Your task to perform on an android device: Open Chrome and go to settings Image 0: 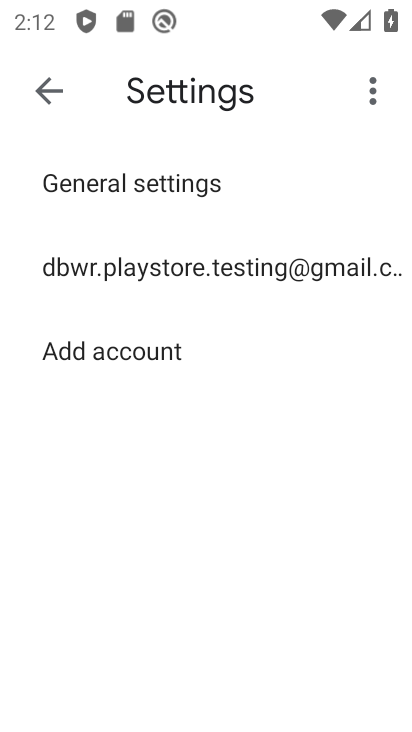
Step 0: press home button
Your task to perform on an android device: Open Chrome and go to settings Image 1: 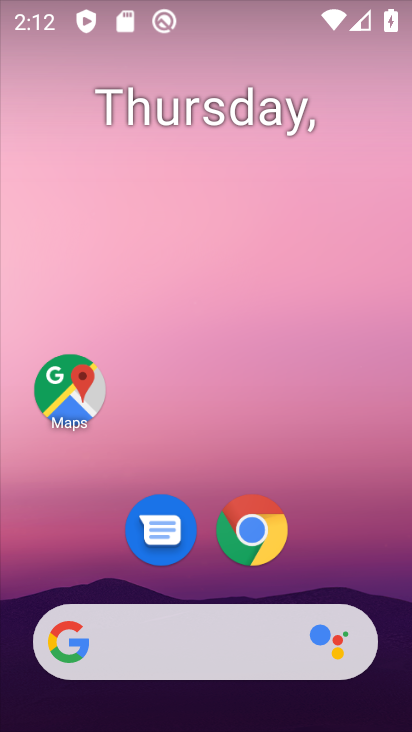
Step 1: click (249, 521)
Your task to perform on an android device: Open Chrome and go to settings Image 2: 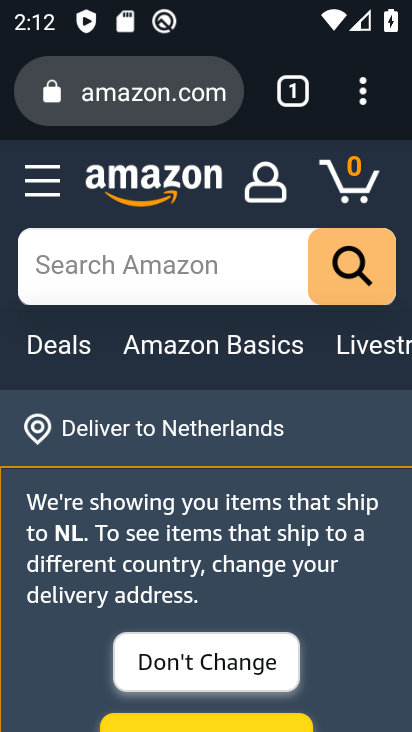
Step 2: click (362, 82)
Your task to perform on an android device: Open Chrome and go to settings Image 3: 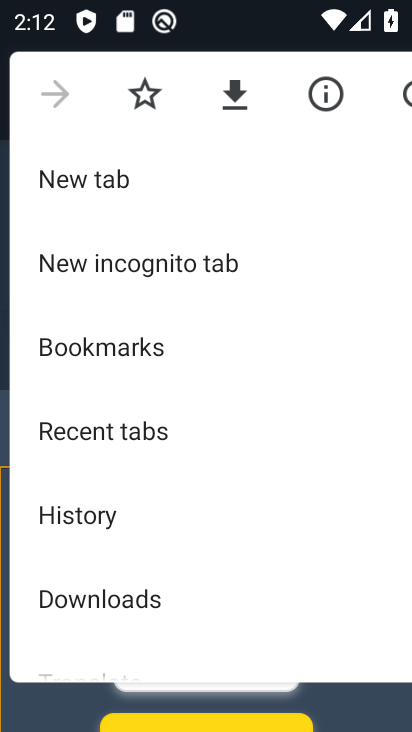
Step 3: drag from (225, 526) to (202, 109)
Your task to perform on an android device: Open Chrome and go to settings Image 4: 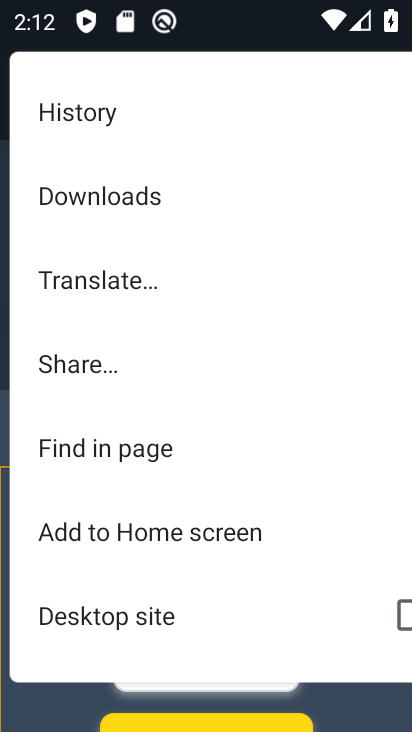
Step 4: drag from (185, 649) to (206, 217)
Your task to perform on an android device: Open Chrome and go to settings Image 5: 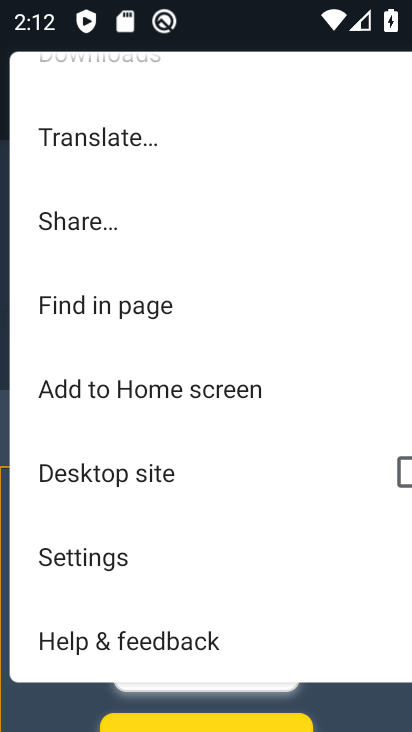
Step 5: click (56, 563)
Your task to perform on an android device: Open Chrome and go to settings Image 6: 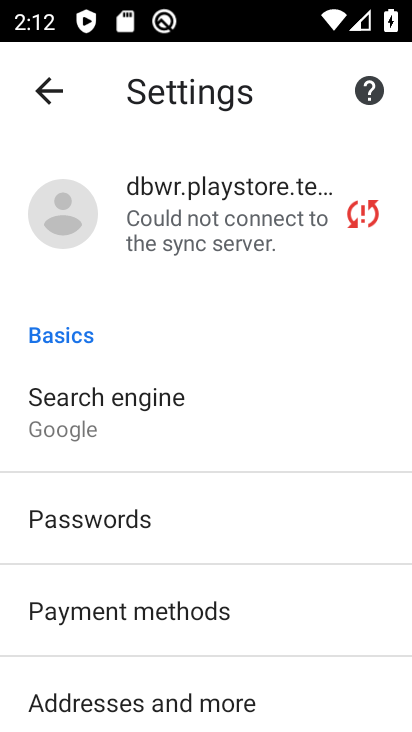
Step 6: task complete